Your task to perform on an android device: Open calendar and show me the first week of next month Image 0: 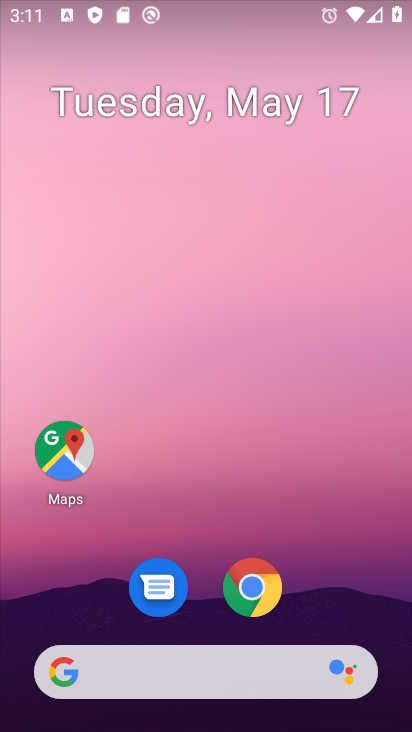
Step 0: drag from (181, 627) to (204, 111)
Your task to perform on an android device: Open calendar and show me the first week of next month Image 1: 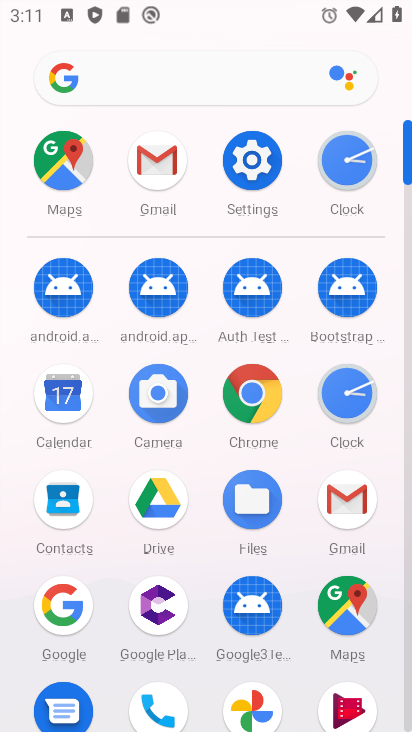
Step 1: click (57, 389)
Your task to perform on an android device: Open calendar and show me the first week of next month Image 2: 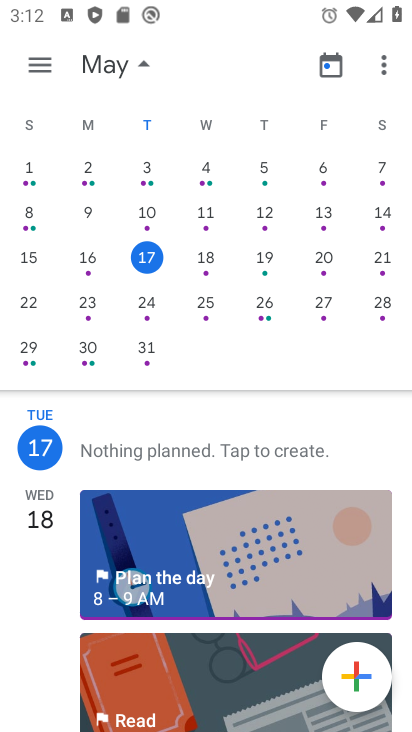
Step 2: drag from (354, 256) to (46, 261)
Your task to perform on an android device: Open calendar and show me the first week of next month Image 3: 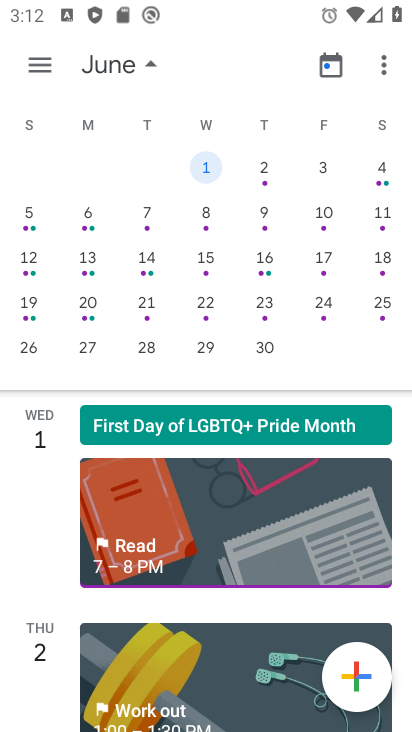
Step 3: click (322, 167)
Your task to perform on an android device: Open calendar and show me the first week of next month Image 4: 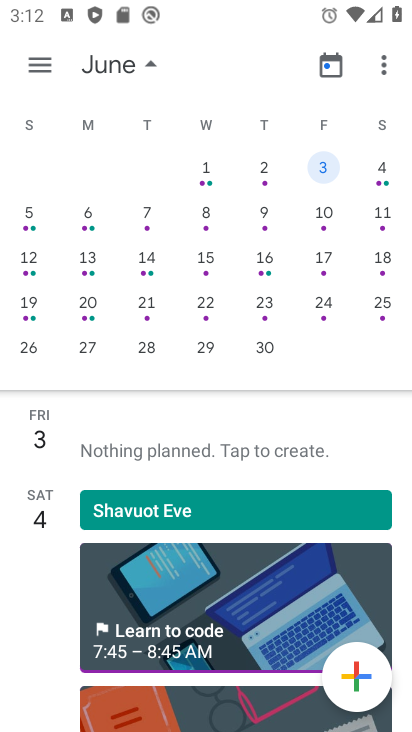
Step 4: task complete